Your task to perform on an android device: read, delete, or share a saved page in the chrome app Image 0: 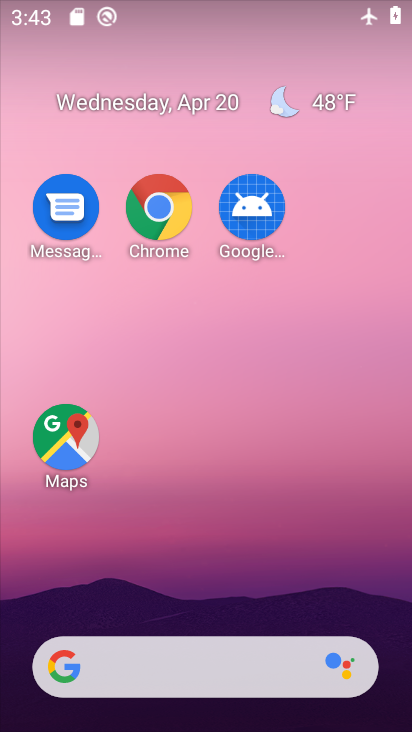
Step 0: drag from (240, 602) to (279, 267)
Your task to perform on an android device: read, delete, or share a saved page in the chrome app Image 1: 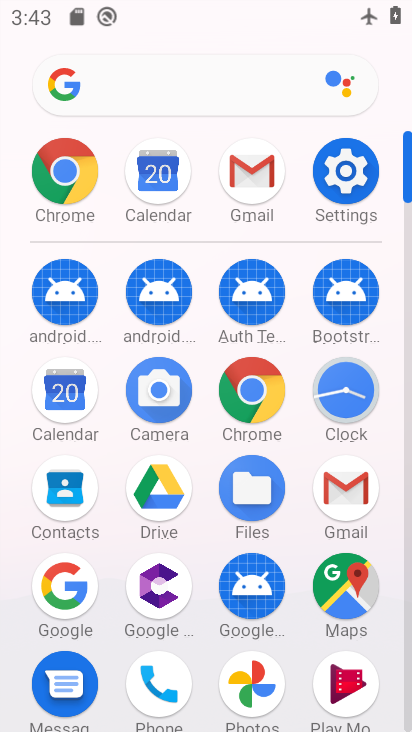
Step 1: click (245, 403)
Your task to perform on an android device: read, delete, or share a saved page in the chrome app Image 2: 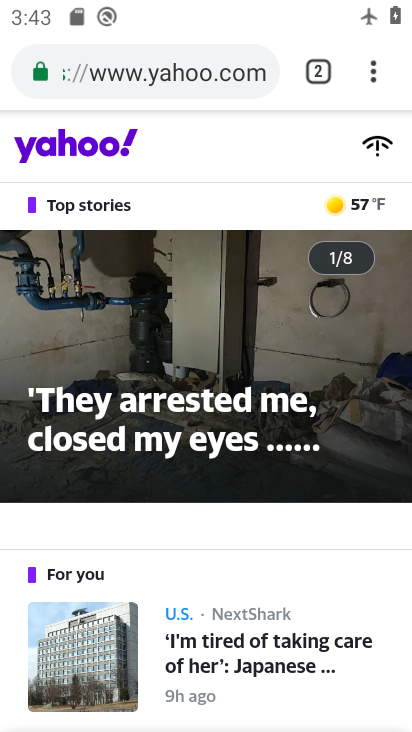
Step 2: click (376, 81)
Your task to perform on an android device: read, delete, or share a saved page in the chrome app Image 3: 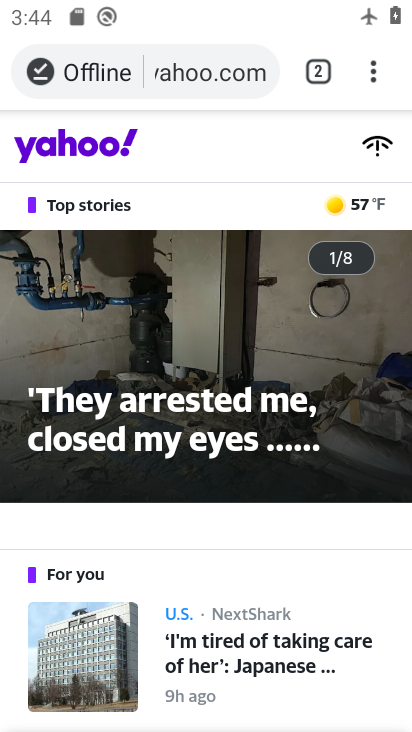
Step 3: click (376, 81)
Your task to perform on an android device: read, delete, or share a saved page in the chrome app Image 4: 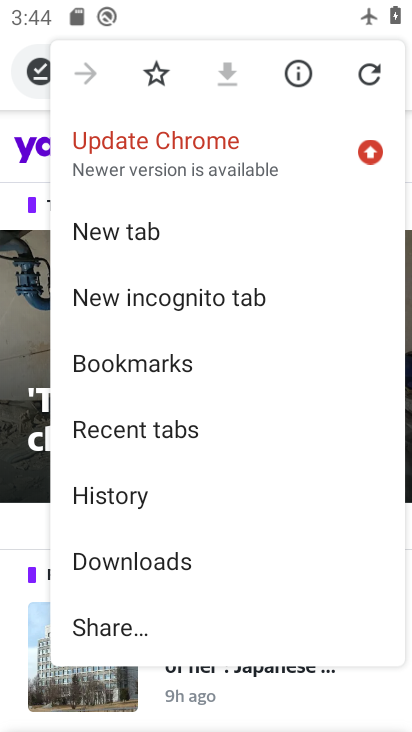
Step 4: drag from (230, 622) to (213, 146)
Your task to perform on an android device: read, delete, or share a saved page in the chrome app Image 5: 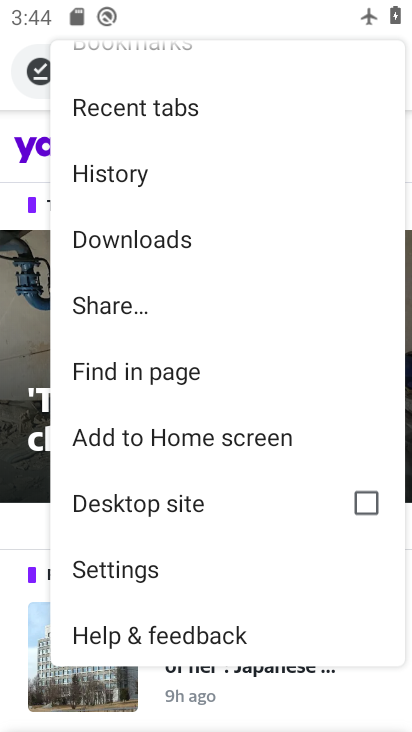
Step 5: click (152, 228)
Your task to perform on an android device: read, delete, or share a saved page in the chrome app Image 6: 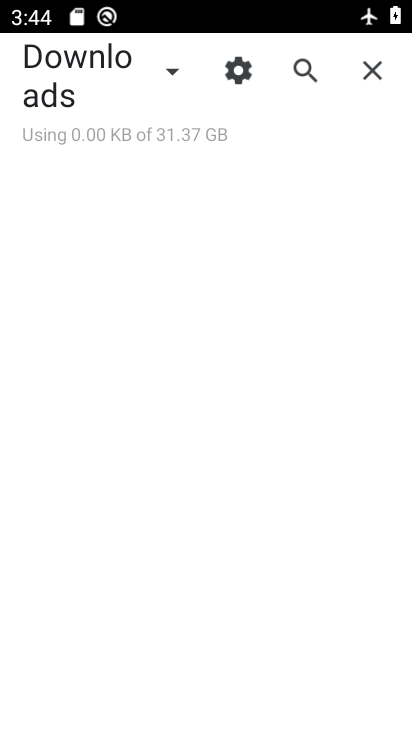
Step 6: click (136, 67)
Your task to perform on an android device: read, delete, or share a saved page in the chrome app Image 7: 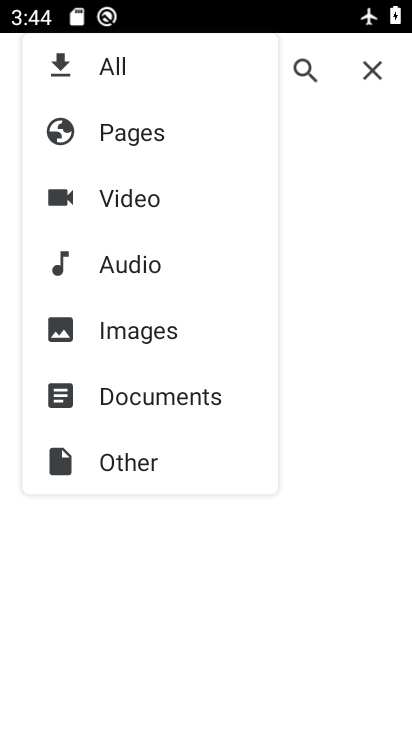
Step 7: click (120, 152)
Your task to perform on an android device: read, delete, or share a saved page in the chrome app Image 8: 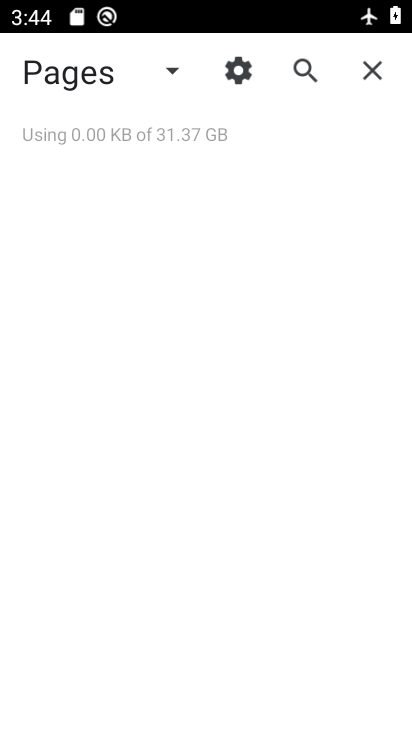
Step 8: task complete